Your task to perform on an android device: Open internet settings Image 0: 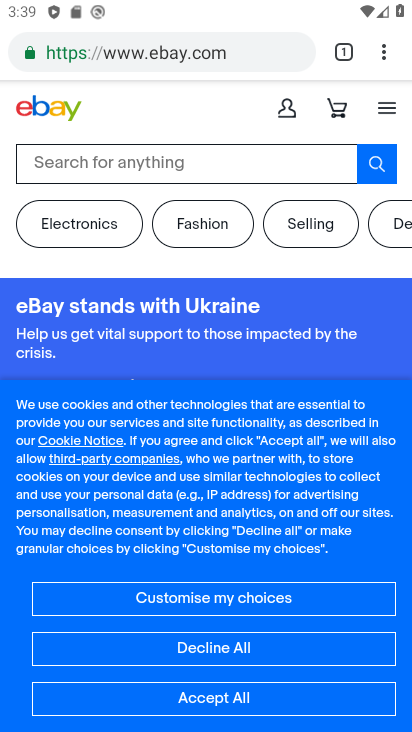
Step 0: press home button
Your task to perform on an android device: Open internet settings Image 1: 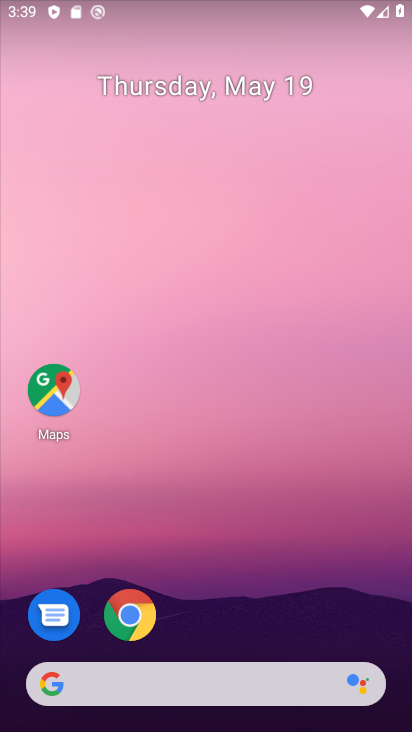
Step 1: drag from (236, 633) to (273, 7)
Your task to perform on an android device: Open internet settings Image 2: 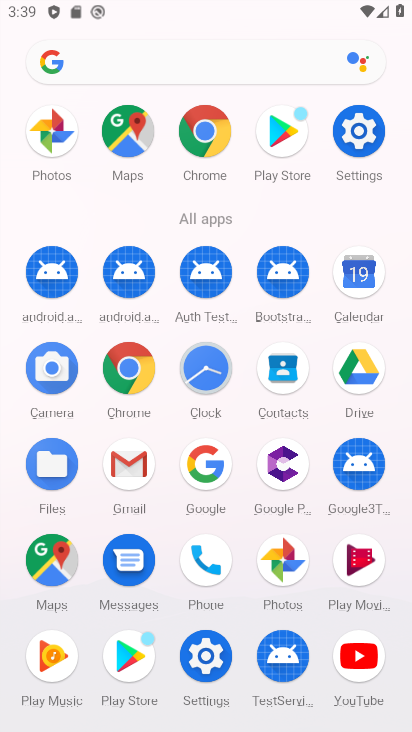
Step 2: click (358, 140)
Your task to perform on an android device: Open internet settings Image 3: 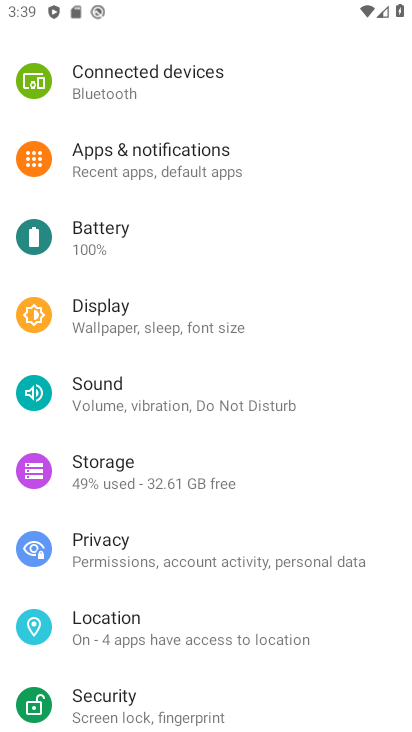
Step 3: drag from (331, 165) to (372, 572)
Your task to perform on an android device: Open internet settings Image 4: 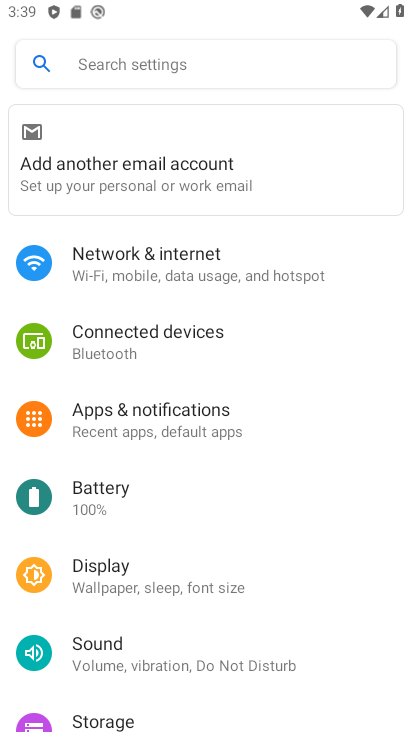
Step 4: click (177, 272)
Your task to perform on an android device: Open internet settings Image 5: 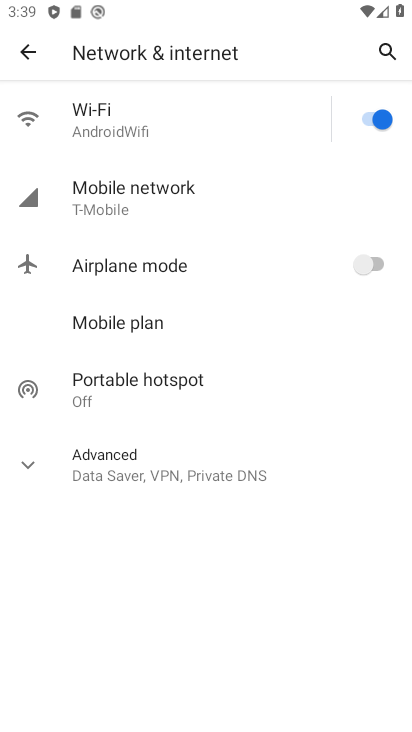
Step 5: task complete